Your task to perform on an android device: toggle translation in the chrome app Image 0: 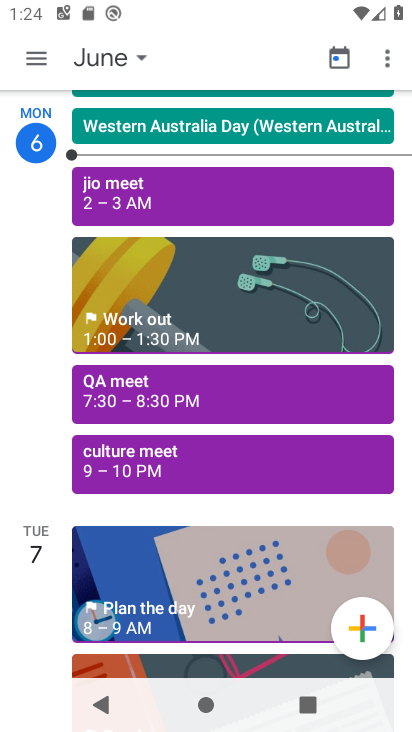
Step 0: press home button
Your task to perform on an android device: toggle translation in the chrome app Image 1: 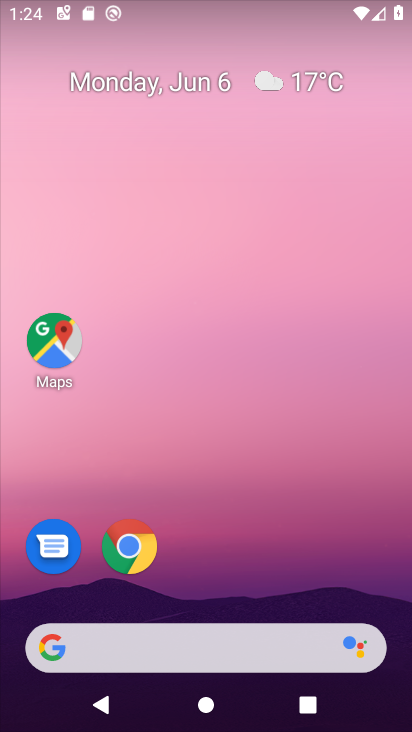
Step 1: drag from (238, 651) to (310, 98)
Your task to perform on an android device: toggle translation in the chrome app Image 2: 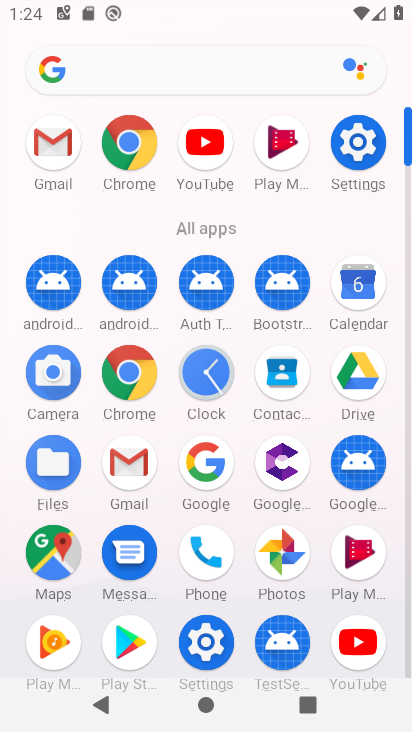
Step 2: click (129, 147)
Your task to perform on an android device: toggle translation in the chrome app Image 3: 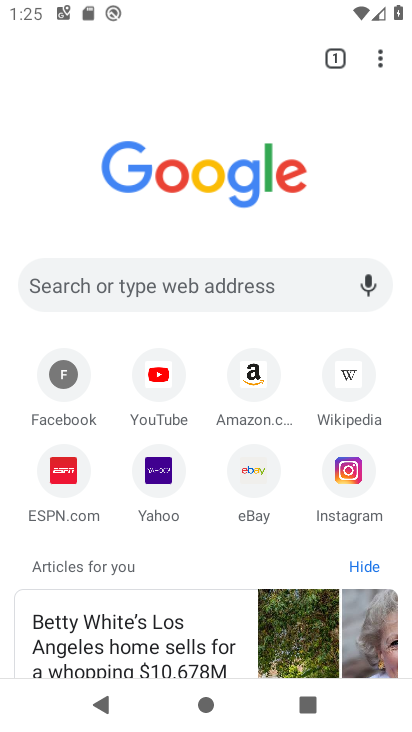
Step 3: drag from (379, 48) to (228, 491)
Your task to perform on an android device: toggle translation in the chrome app Image 4: 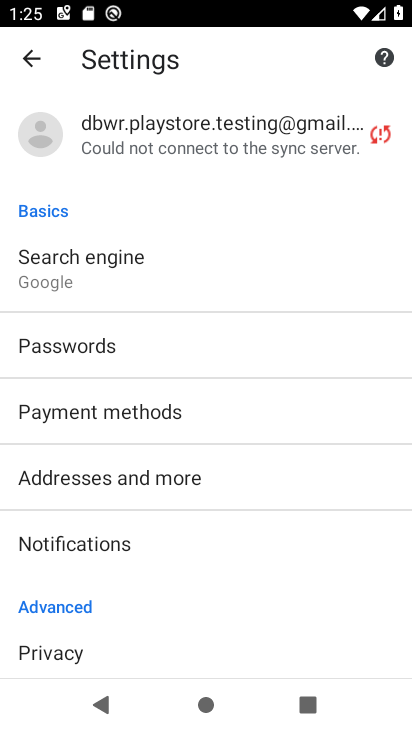
Step 4: drag from (121, 580) to (271, 17)
Your task to perform on an android device: toggle translation in the chrome app Image 5: 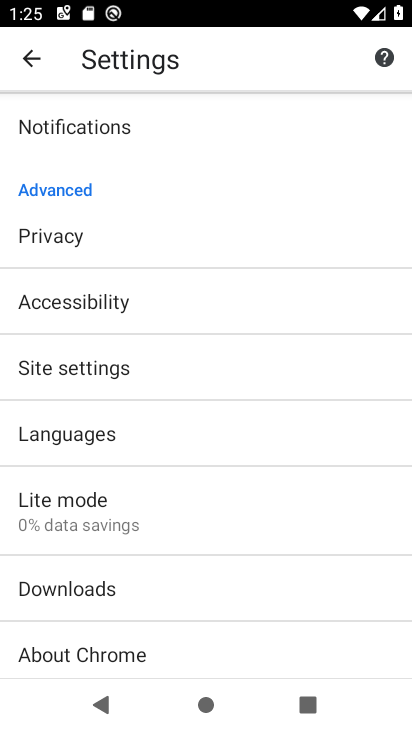
Step 5: drag from (130, 539) to (260, 1)
Your task to perform on an android device: toggle translation in the chrome app Image 6: 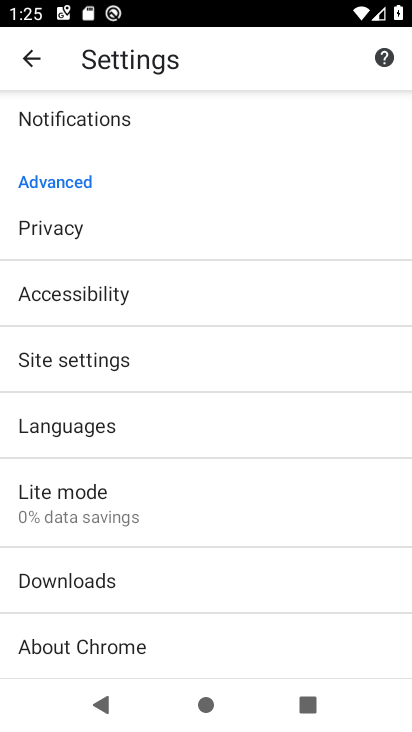
Step 6: click (83, 431)
Your task to perform on an android device: toggle translation in the chrome app Image 7: 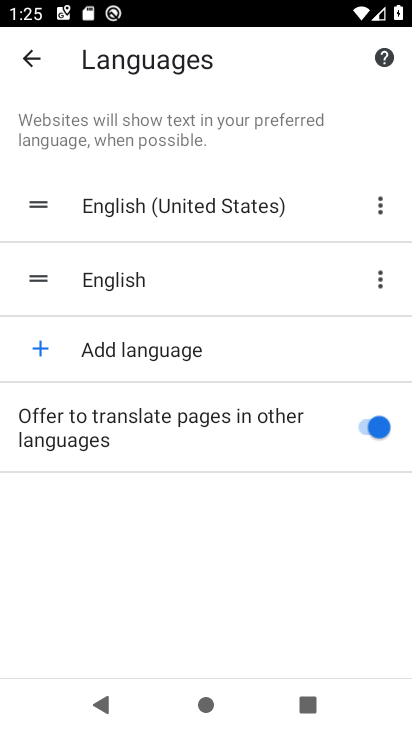
Step 7: click (363, 411)
Your task to perform on an android device: toggle translation in the chrome app Image 8: 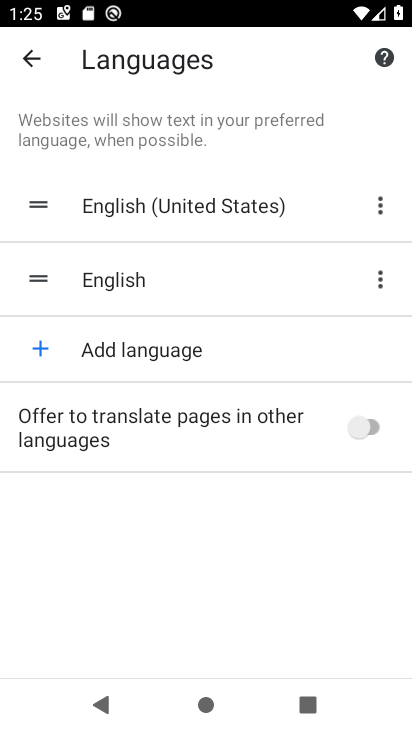
Step 8: task complete